Your task to perform on an android device: Empty the shopping cart on bestbuy.com. Add "asus zenbook" to the cart on bestbuy.com, then select checkout. Image 0: 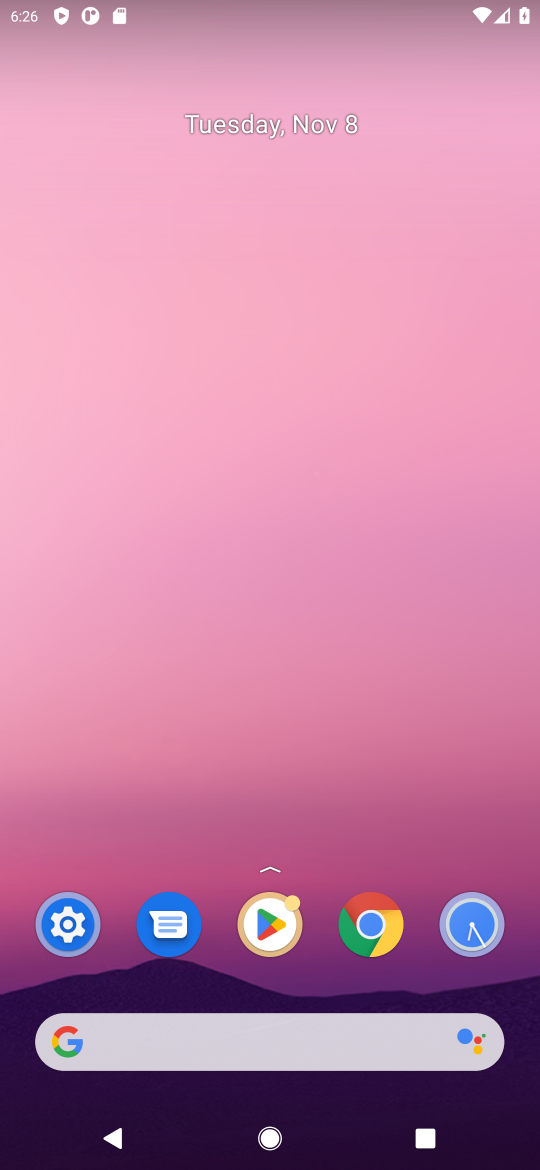
Step 0: click (212, 1038)
Your task to perform on an android device: Empty the shopping cart on bestbuy.com. Add "asus zenbook" to the cart on bestbuy.com, then select checkout. Image 1: 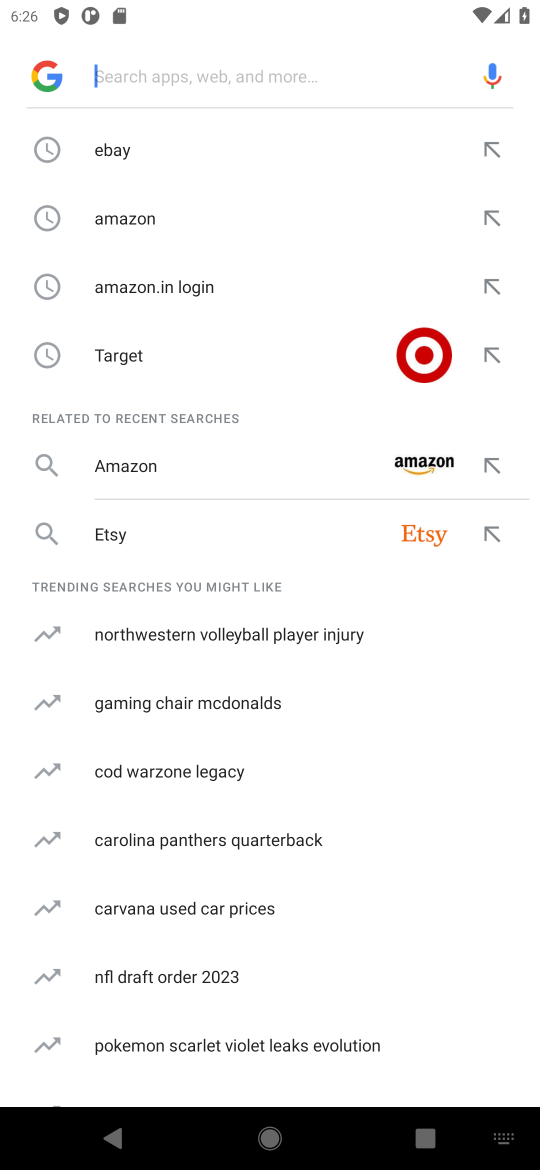
Step 1: type " bestbuy.com"
Your task to perform on an android device: Empty the shopping cart on bestbuy.com. Add "asus zenbook" to the cart on bestbuy.com, then select checkout. Image 2: 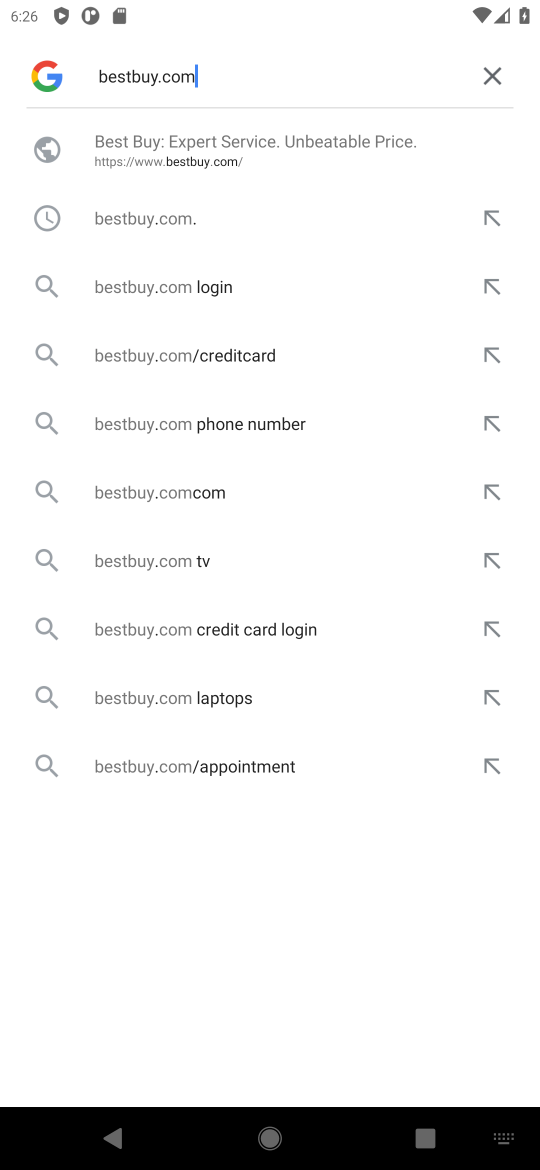
Step 2: click (161, 166)
Your task to perform on an android device: Empty the shopping cart on bestbuy.com. Add "asus zenbook" to the cart on bestbuy.com, then select checkout. Image 3: 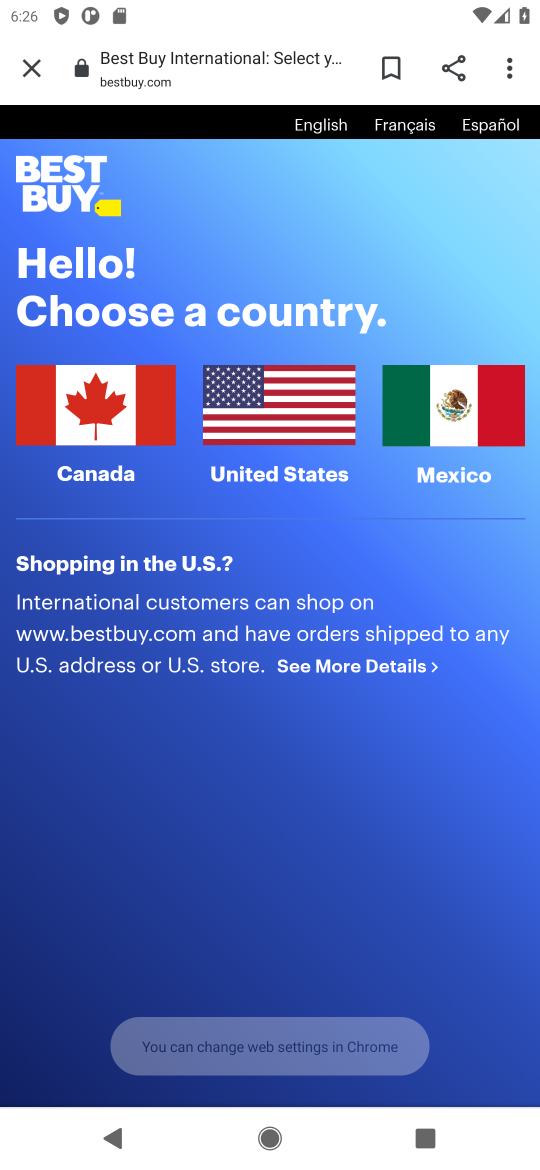
Step 3: click (265, 407)
Your task to perform on an android device: Empty the shopping cart on bestbuy.com. Add "asus zenbook" to the cart on bestbuy.com, then select checkout. Image 4: 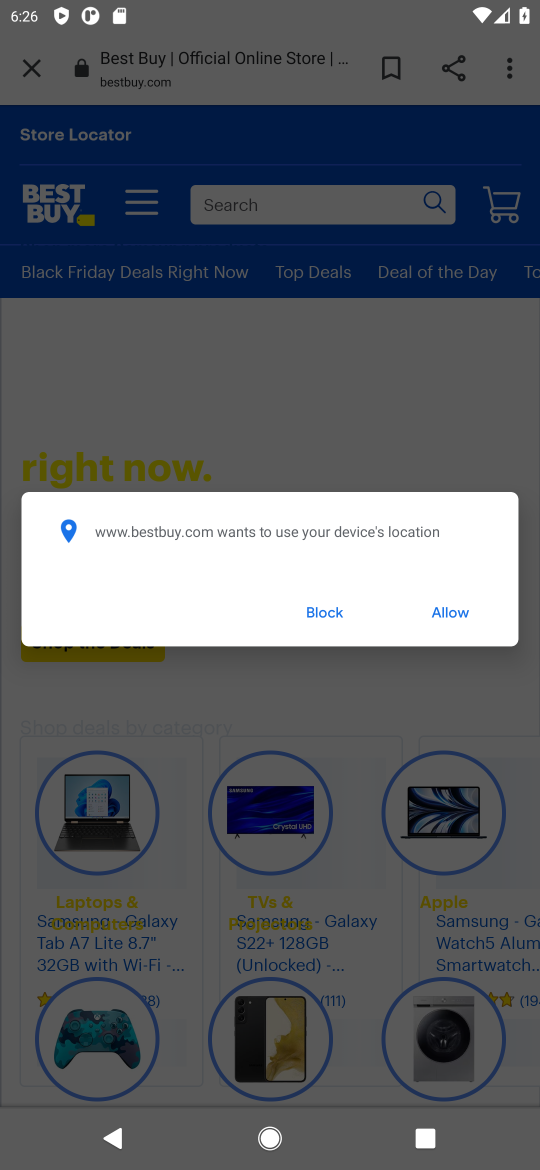
Step 4: click (324, 600)
Your task to perform on an android device: Empty the shopping cart on bestbuy.com. Add "asus zenbook" to the cart on bestbuy.com, then select checkout. Image 5: 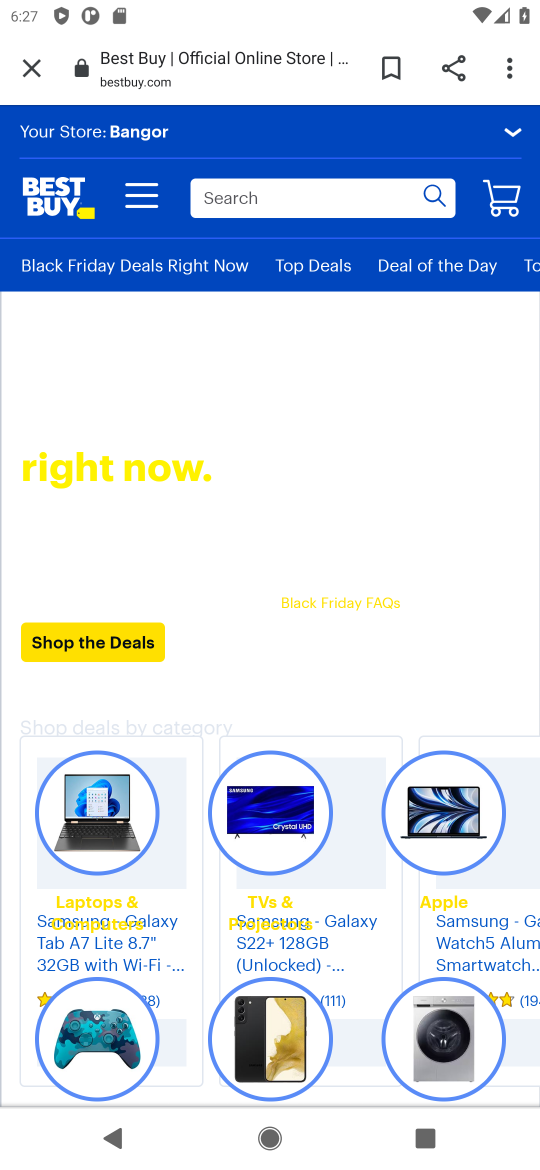
Step 5: click (318, 204)
Your task to perform on an android device: Empty the shopping cart on bestbuy.com. Add "asus zenbook" to the cart on bestbuy.com, then select checkout. Image 6: 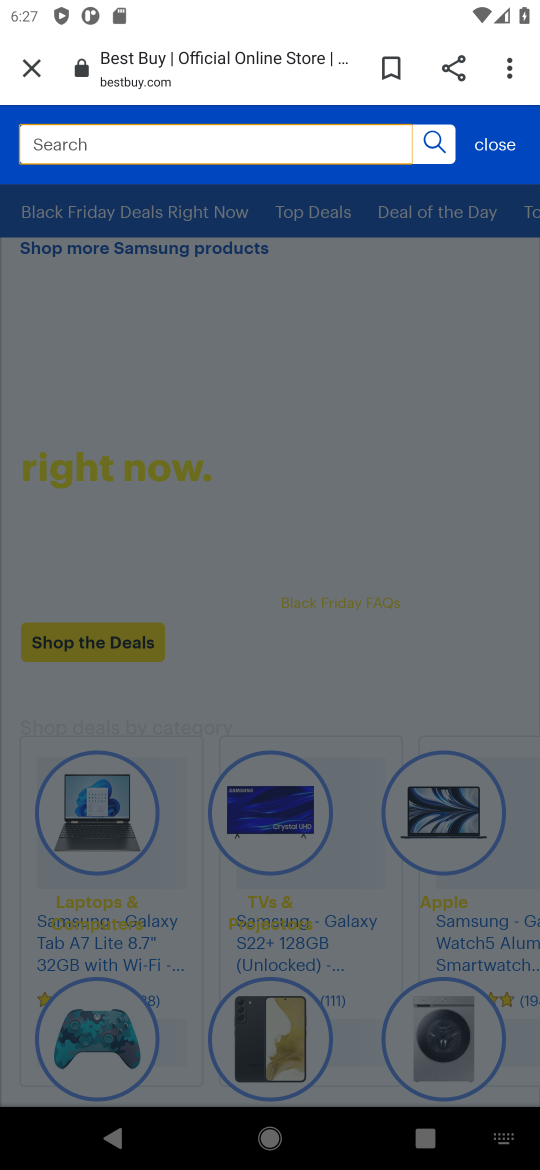
Step 6: type "asus zenbook"
Your task to perform on an android device: Empty the shopping cart on bestbuy.com. Add "asus zenbook" to the cart on bestbuy.com, then select checkout. Image 7: 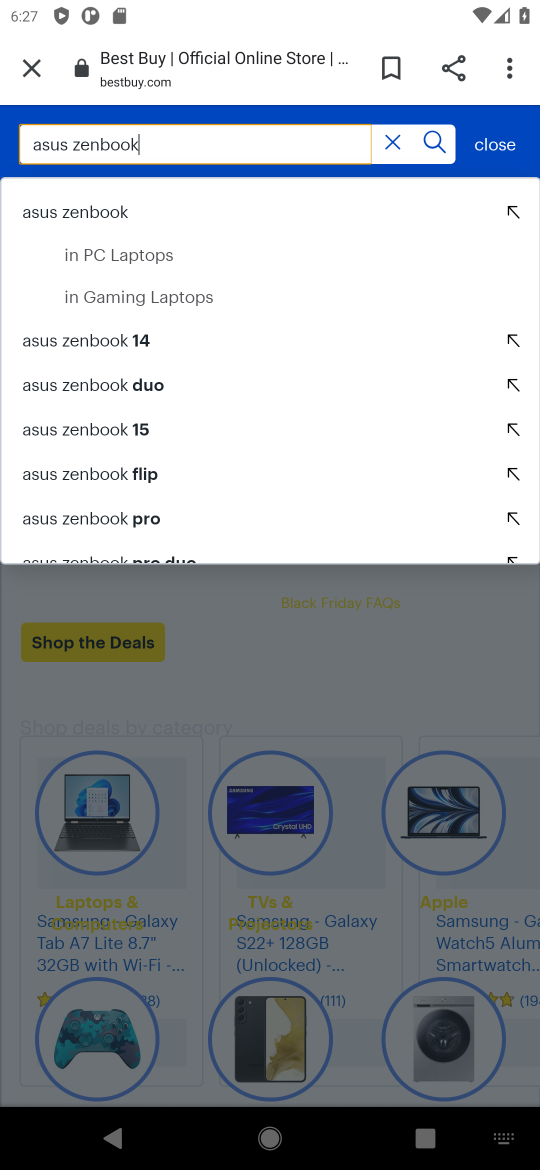
Step 7: click (85, 215)
Your task to perform on an android device: Empty the shopping cart on bestbuy.com. Add "asus zenbook" to the cart on bestbuy.com, then select checkout. Image 8: 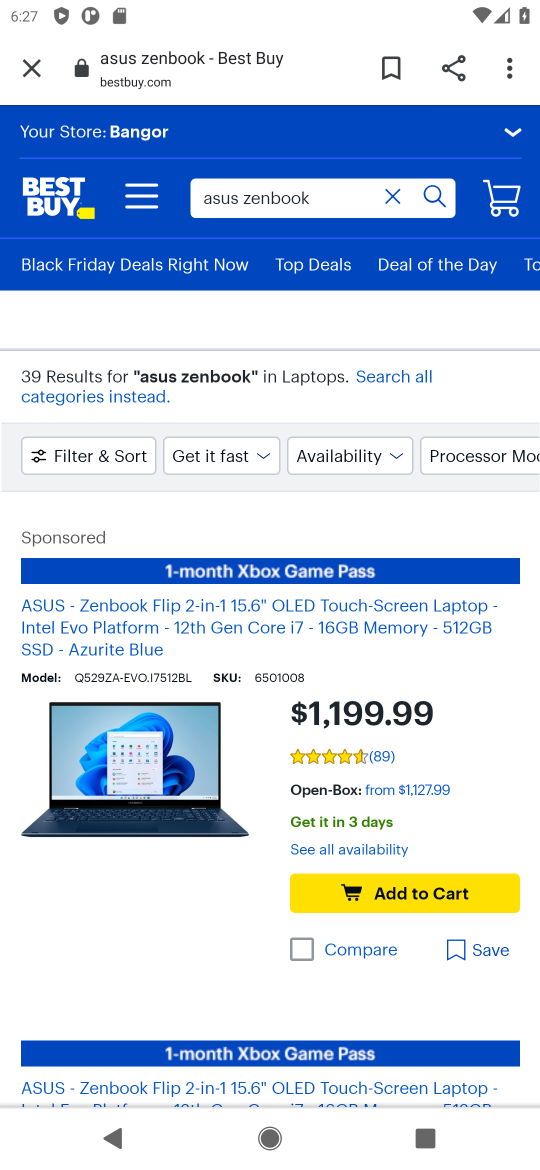
Step 8: click (130, 641)
Your task to perform on an android device: Empty the shopping cart on bestbuy.com. Add "asus zenbook" to the cart on bestbuy.com, then select checkout. Image 9: 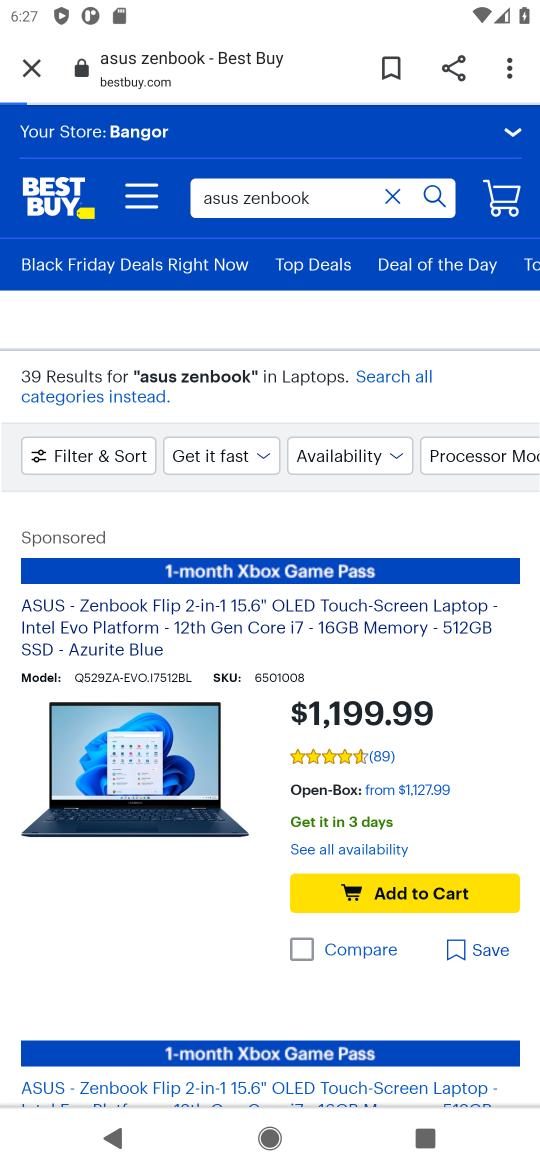
Step 9: click (361, 889)
Your task to perform on an android device: Empty the shopping cart on bestbuy.com. Add "asus zenbook" to the cart on bestbuy.com, then select checkout. Image 10: 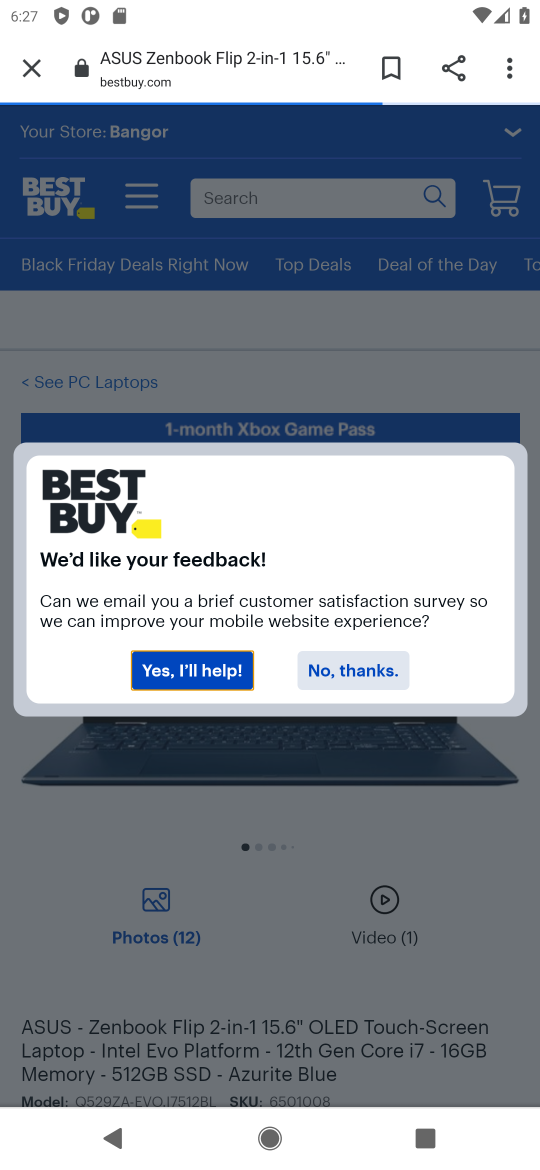
Step 10: drag from (270, 971) to (351, 230)
Your task to perform on an android device: Empty the shopping cart on bestbuy.com. Add "asus zenbook" to the cart on bestbuy.com, then select checkout. Image 11: 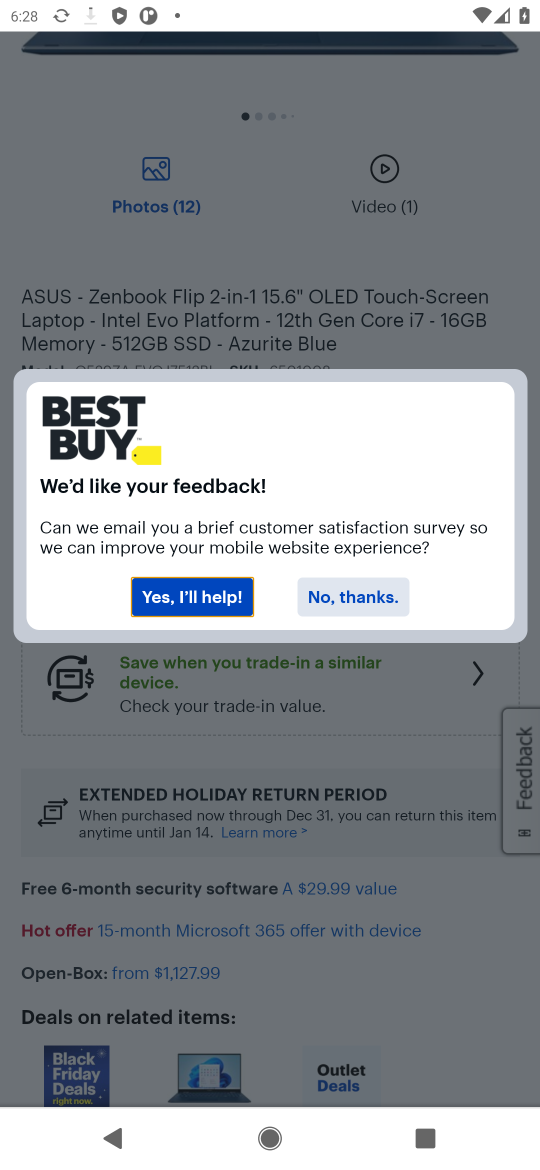
Step 11: click (367, 592)
Your task to perform on an android device: Empty the shopping cart on bestbuy.com. Add "asus zenbook" to the cart on bestbuy.com, then select checkout. Image 12: 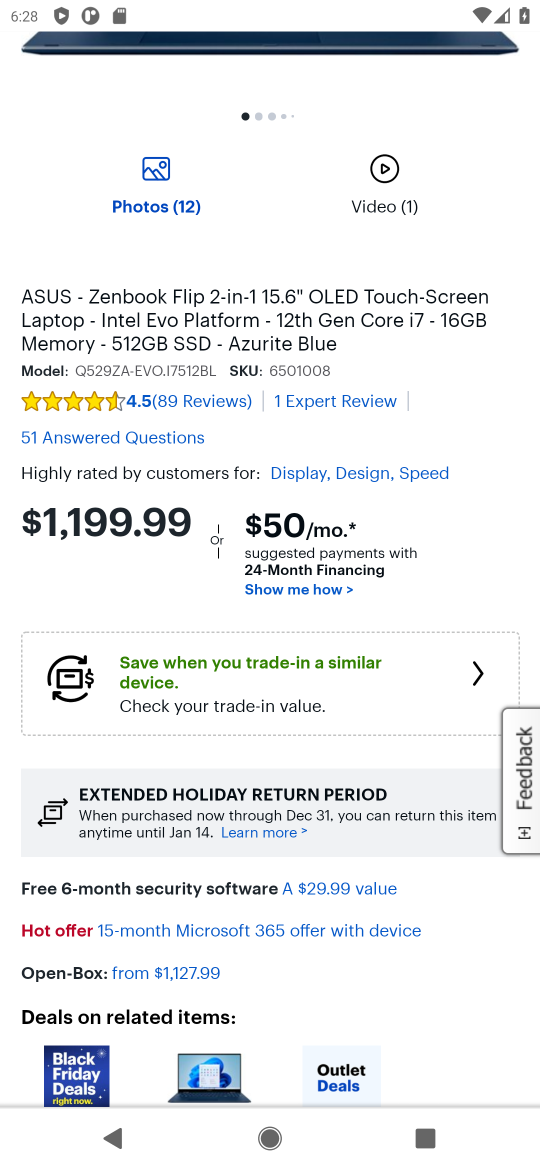
Step 12: drag from (333, 667) to (357, 541)
Your task to perform on an android device: Empty the shopping cart on bestbuy.com. Add "asus zenbook" to the cart on bestbuy.com, then select checkout. Image 13: 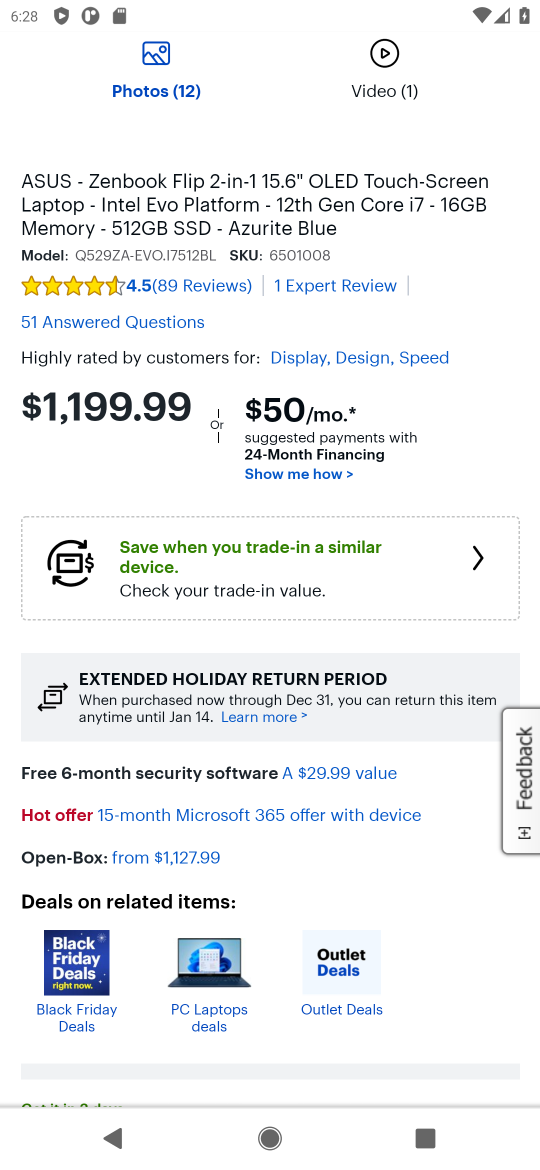
Step 13: drag from (436, 610) to (509, 190)
Your task to perform on an android device: Empty the shopping cart on bestbuy.com. Add "asus zenbook" to the cart on bestbuy.com, then select checkout. Image 14: 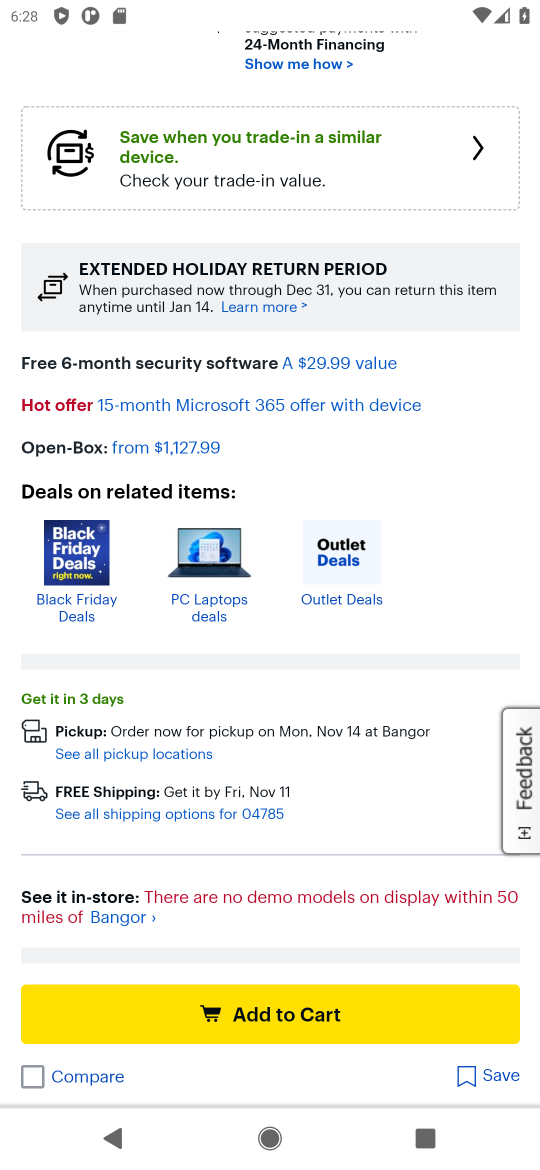
Step 14: drag from (420, 545) to (215, 1134)
Your task to perform on an android device: Empty the shopping cart on bestbuy.com. Add "asus zenbook" to the cart on bestbuy.com, then select checkout. Image 15: 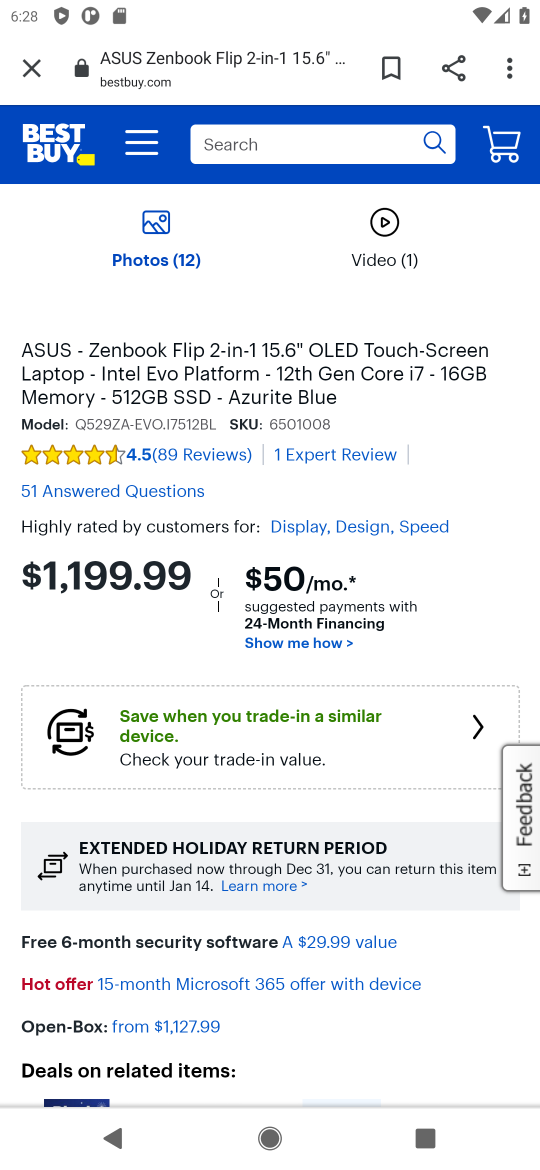
Step 15: drag from (388, 746) to (429, 470)
Your task to perform on an android device: Empty the shopping cart on bestbuy.com. Add "asus zenbook" to the cart on bestbuy.com, then select checkout. Image 16: 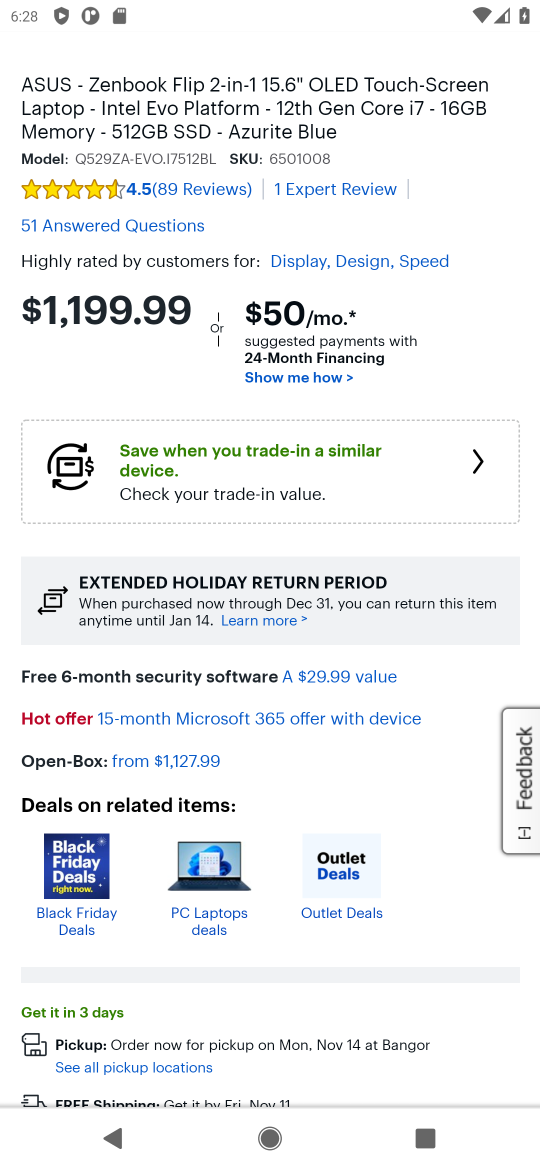
Step 16: drag from (259, 916) to (341, 445)
Your task to perform on an android device: Empty the shopping cart on bestbuy.com. Add "asus zenbook" to the cart on bestbuy.com, then select checkout. Image 17: 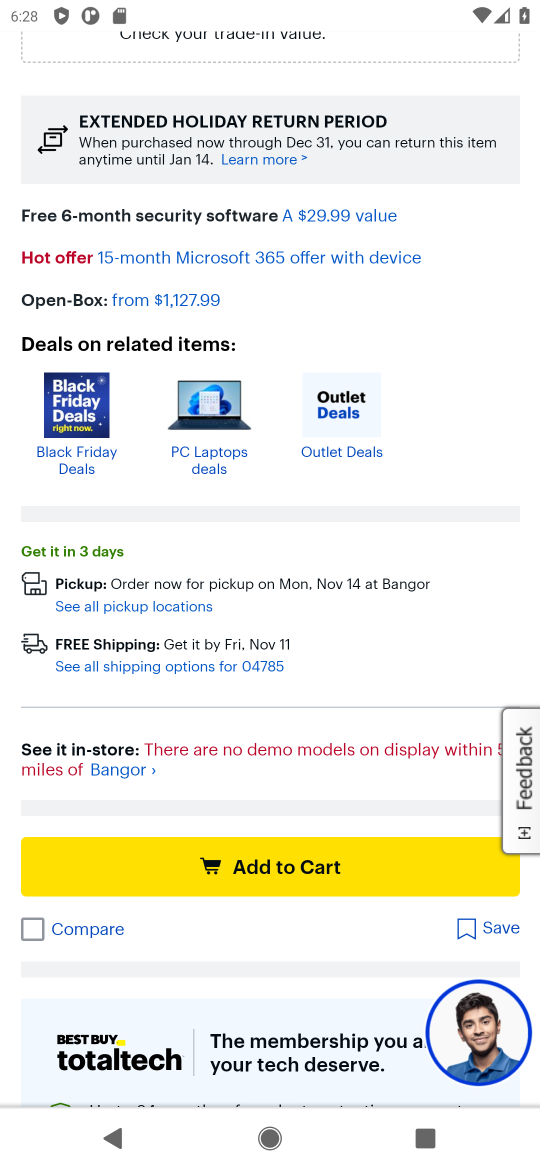
Step 17: click (254, 866)
Your task to perform on an android device: Empty the shopping cart on bestbuy.com. Add "asus zenbook" to the cart on bestbuy.com, then select checkout. Image 18: 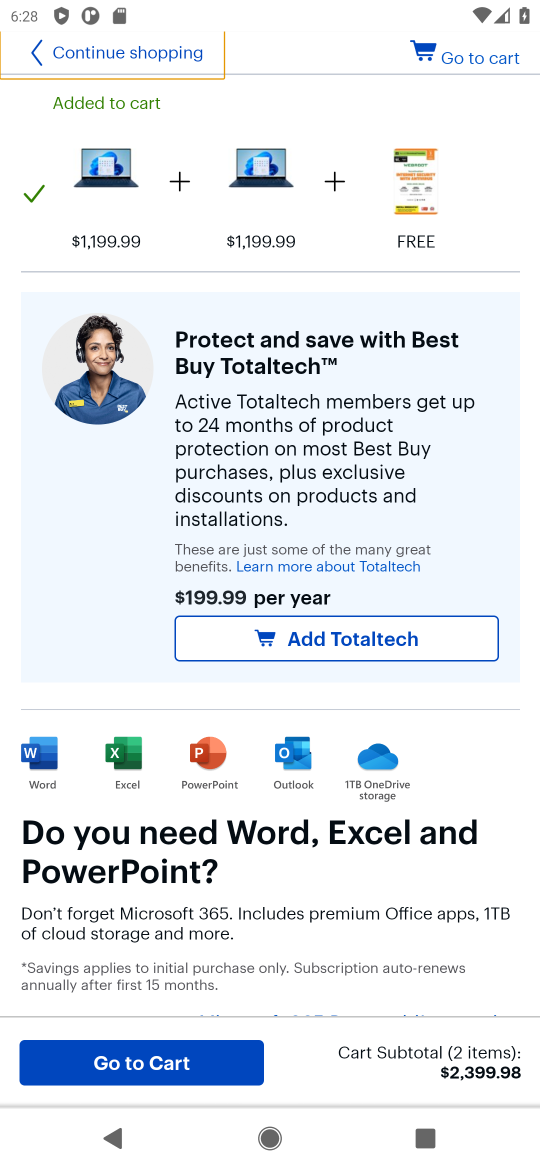
Step 18: click (113, 1067)
Your task to perform on an android device: Empty the shopping cart on bestbuy.com. Add "asus zenbook" to the cart on bestbuy.com, then select checkout. Image 19: 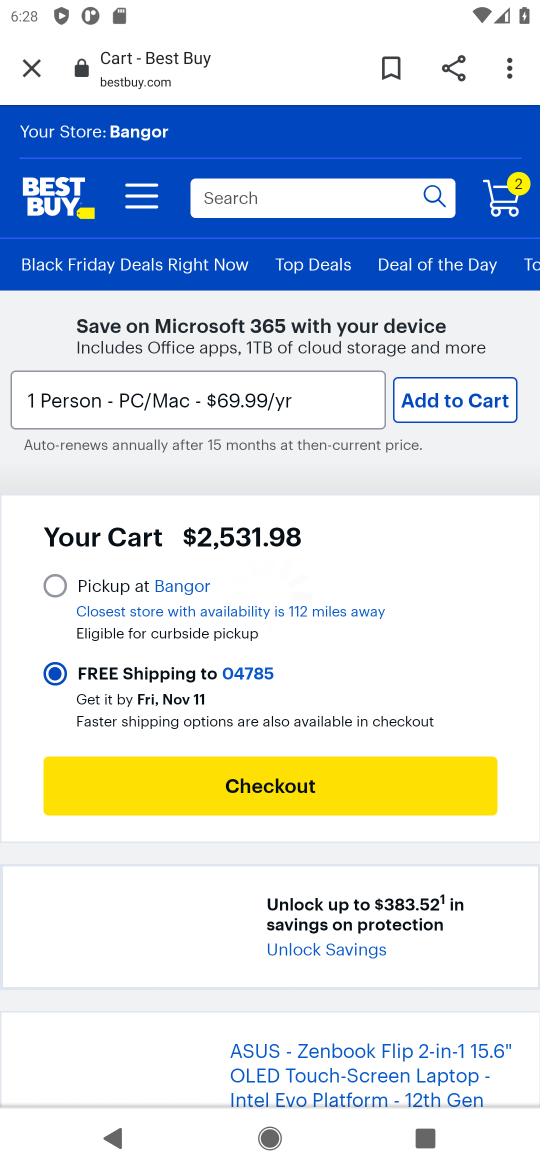
Step 19: click (496, 200)
Your task to perform on an android device: Empty the shopping cart on bestbuy.com. Add "asus zenbook" to the cart on bestbuy.com, then select checkout. Image 20: 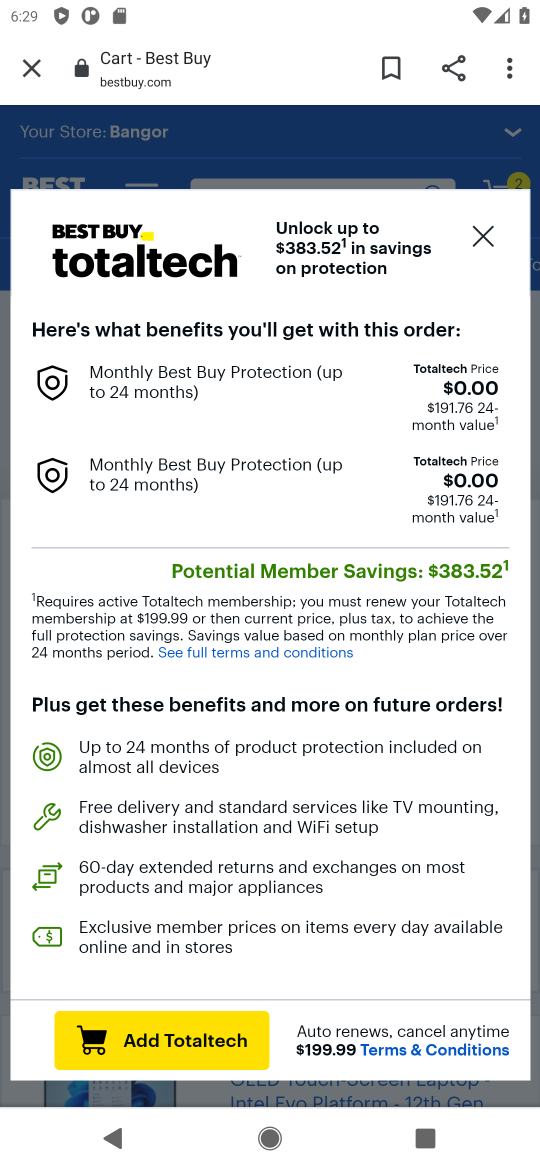
Step 20: click (480, 247)
Your task to perform on an android device: Empty the shopping cart on bestbuy.com. Add "asus zenbook" to the cart on bestbuy.com, then select checkout. Image 21: 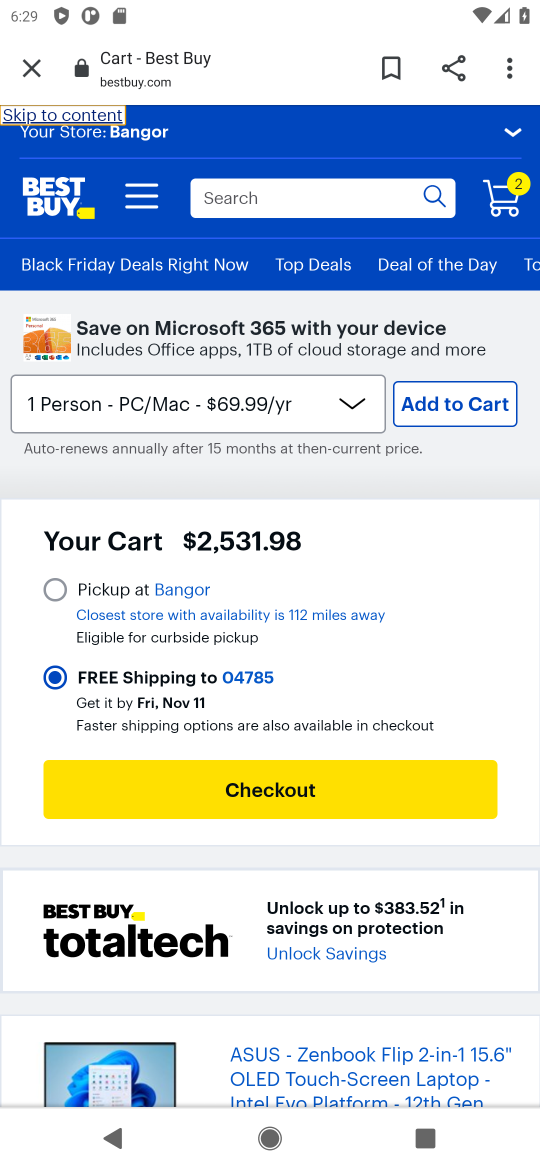
Step 21: click (266, 802)
Your task to perform on an android device: Empty the shopping cart on bestbuy.com. Add "asus zenbook" to the cart on bestbuy.com, then select checkout. Image 22: 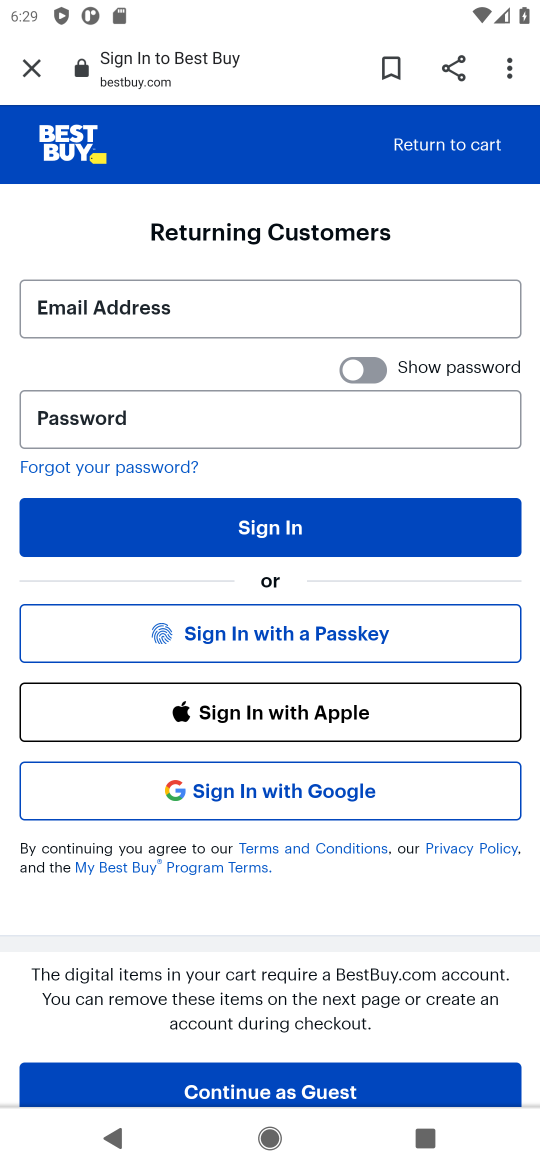
Step 22: task complete